Your task to perform on an android device: Check the weather Image 0: 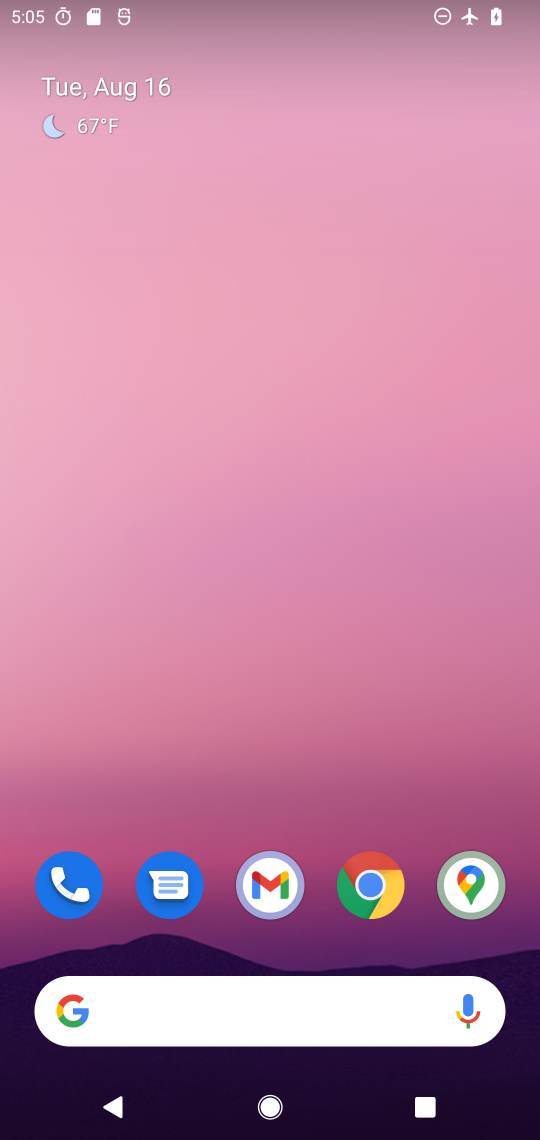
Step 0: drag from (211, 891) to (238, 194)
Your task to perform on an android device: Check the weather Image 1: 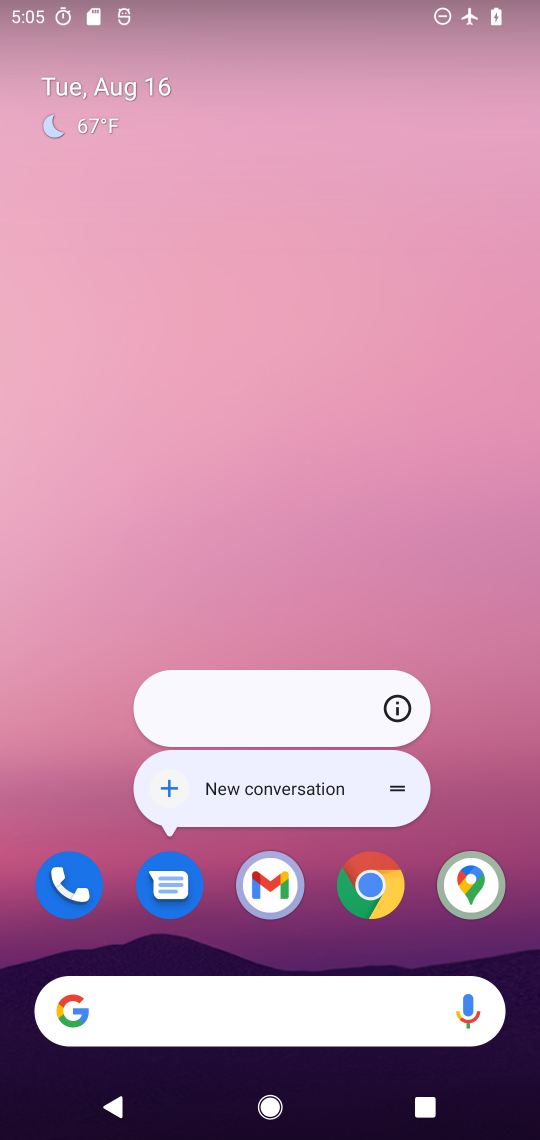
Step 1: click (395, 889)
Your task to perform on an android device: Check the weather Image 2: 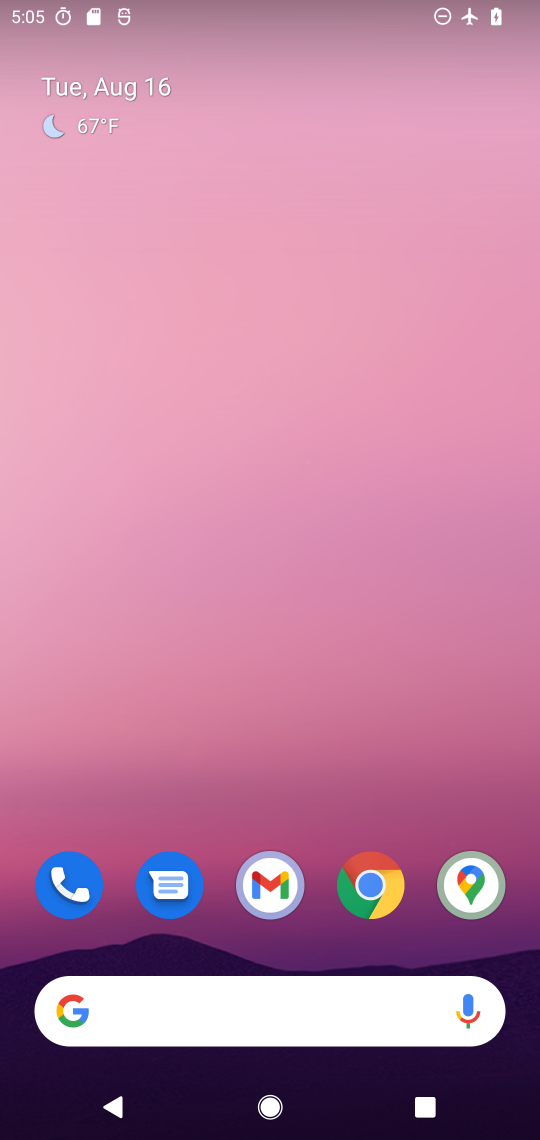
Step 2: drag from (233, 998) to (252, 72)
Your task to perform on an android device: Check the weather Image 3: 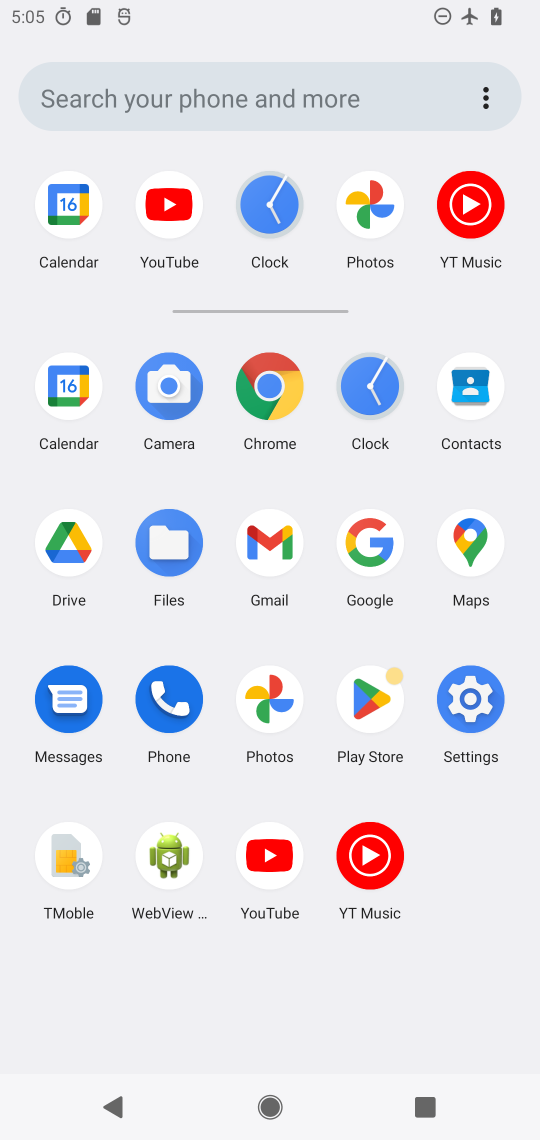
Step 3: click (278, 373)
Your task to perform on an android device: Check the weather Image 4: 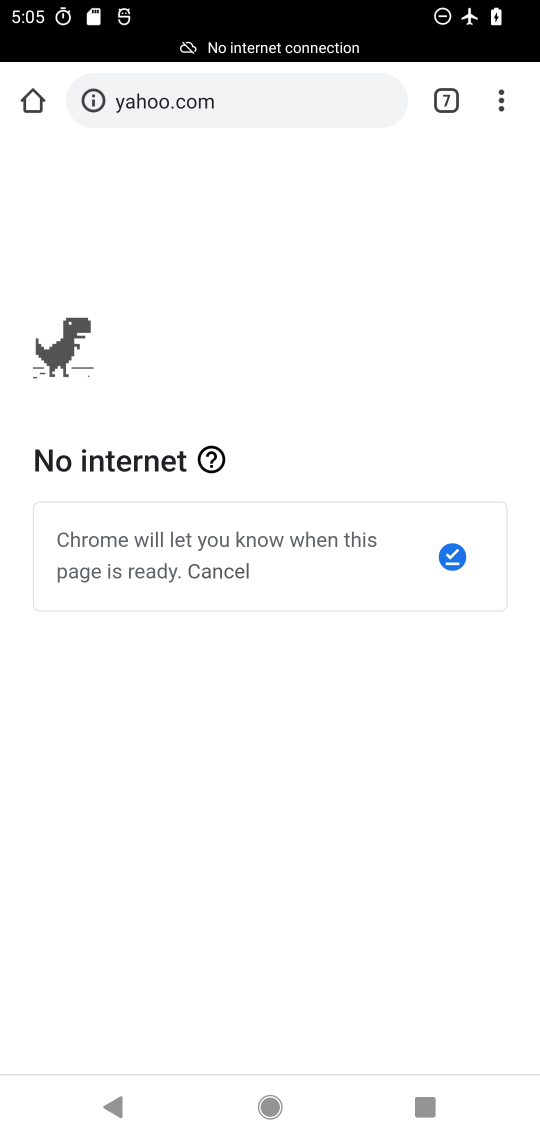
Step 4: click (509, 101)
Your task to perform on an android device: Check the weather Image 5: 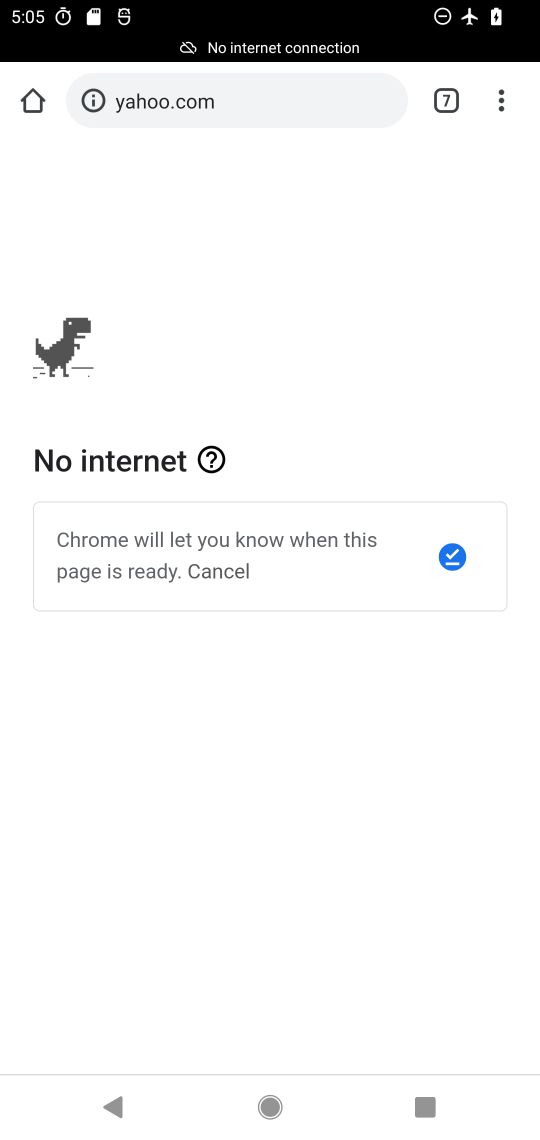
Step 5: click (492, 99)
Your task to perform on an android device: Check the weather Image 6: 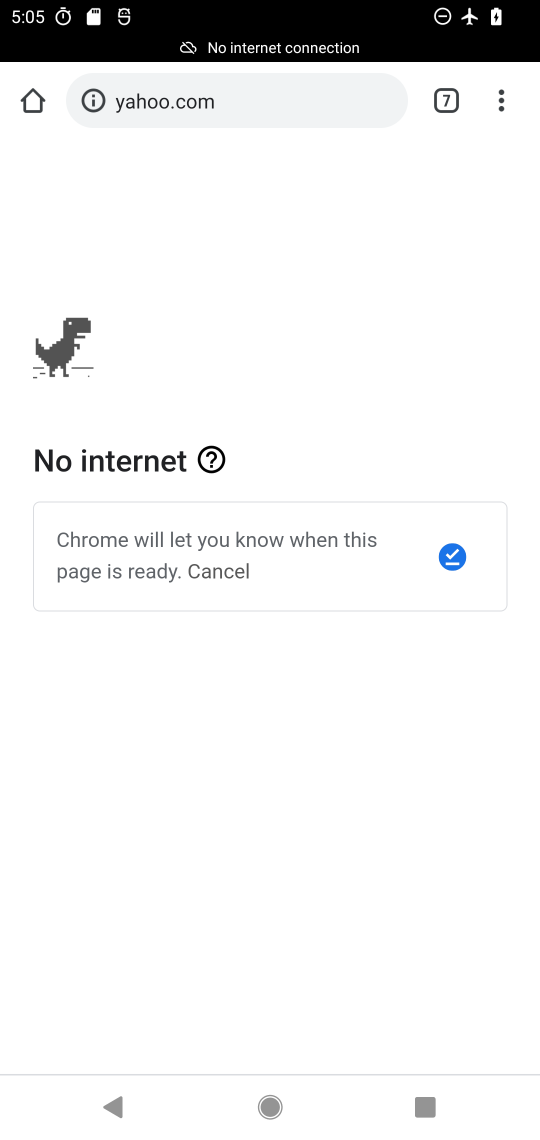
Step 6: click (492, 99)
Your task to perform on an android device: Check the weather Image 7: 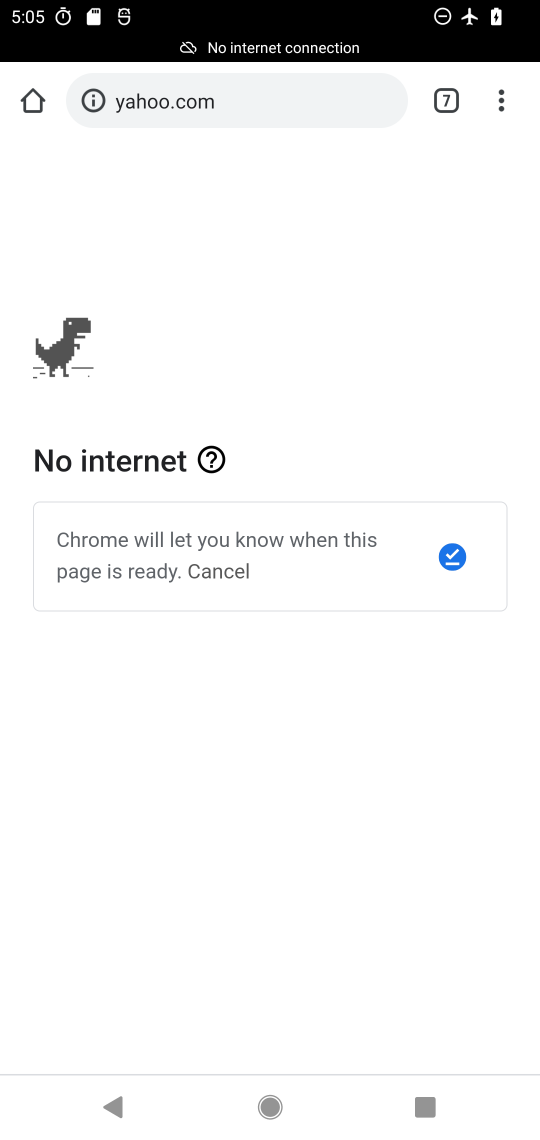
Step 7: click (500, 90)
Your task to perform on an android device: Check the weather Image 8: 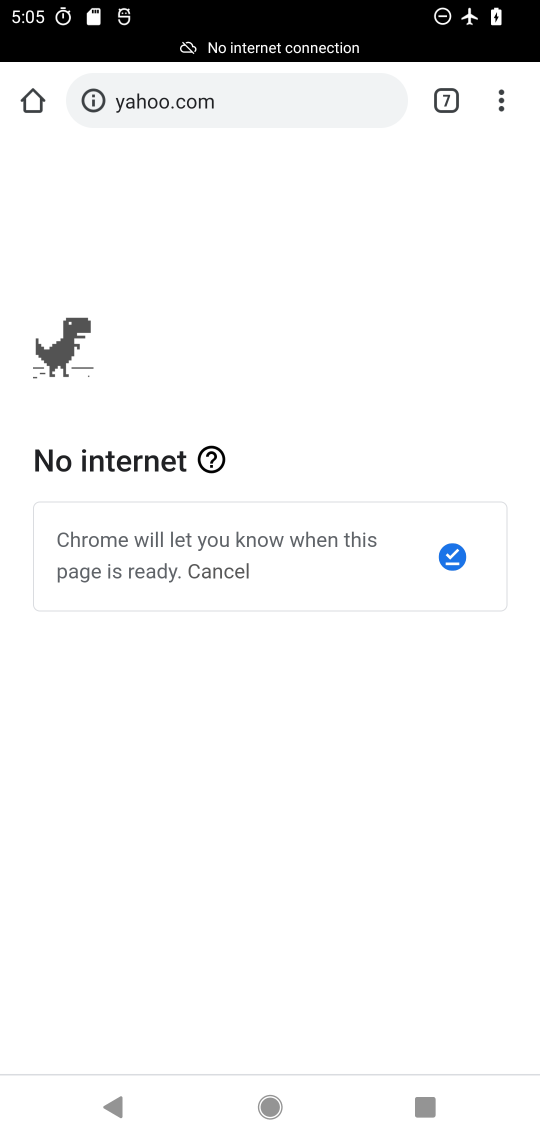
Step 8: click (500, 105)
Your task to perform on an android device: Check the weather Image 9: 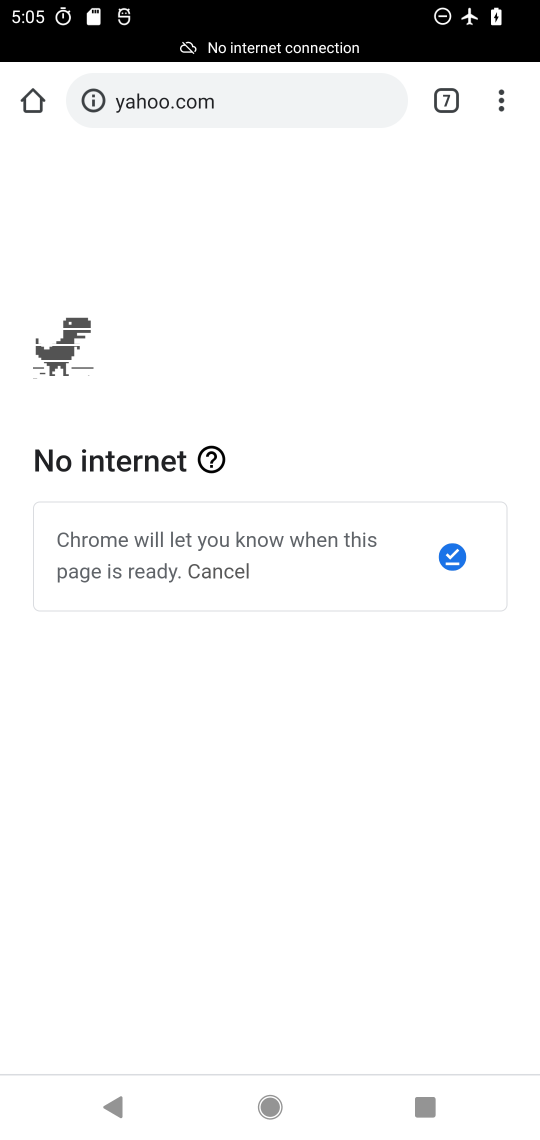
Step 9: click (487, 96)
Your task to perform on an android device: Check the weather Image 10: 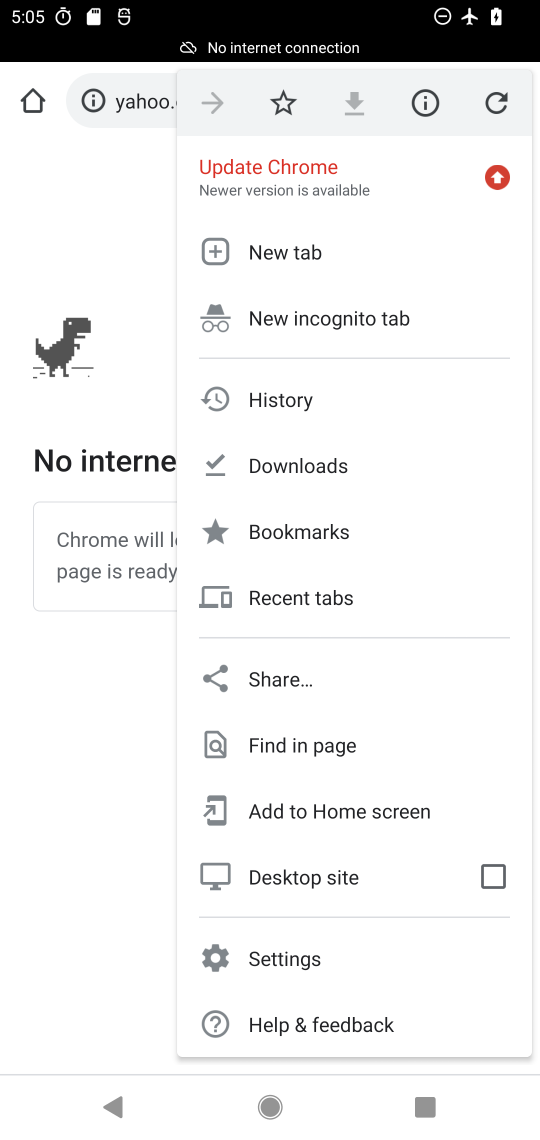
Step 10: click (279, 237)
Your task to perform on an android device: Check the weather Image 11: 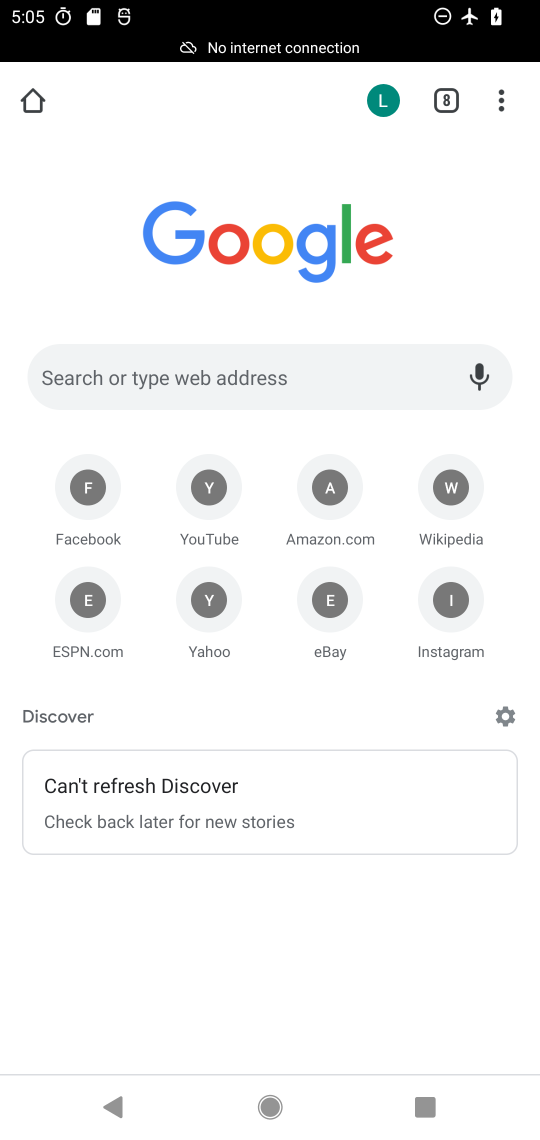
Step 11: click (187, 362)
Your task to perform on an android device: Check the weather Image 12: 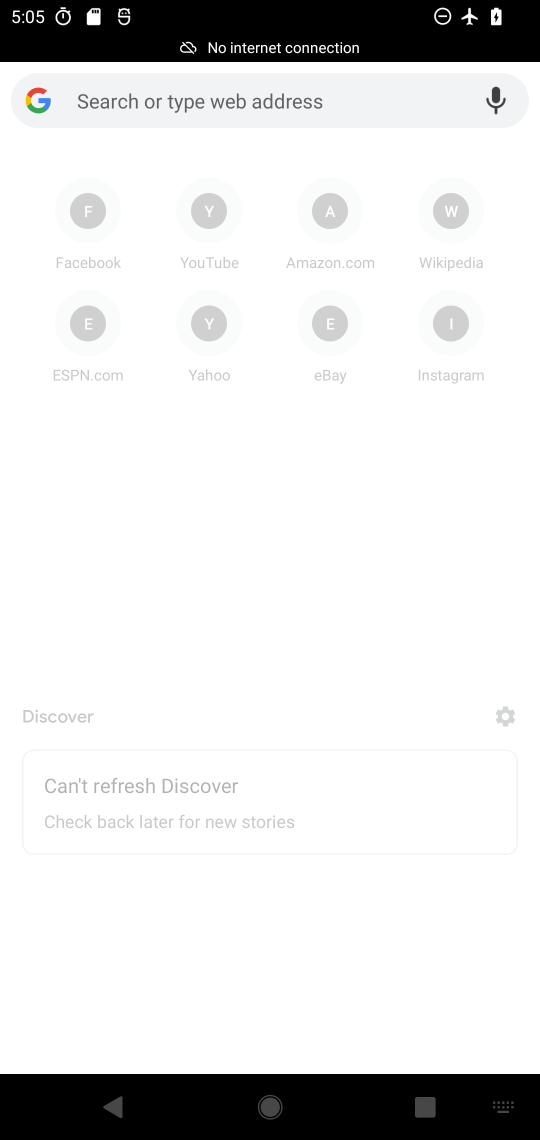
Step 12: type "Check the weather "
Your task to perform on an android device: Check the weather Image 13: 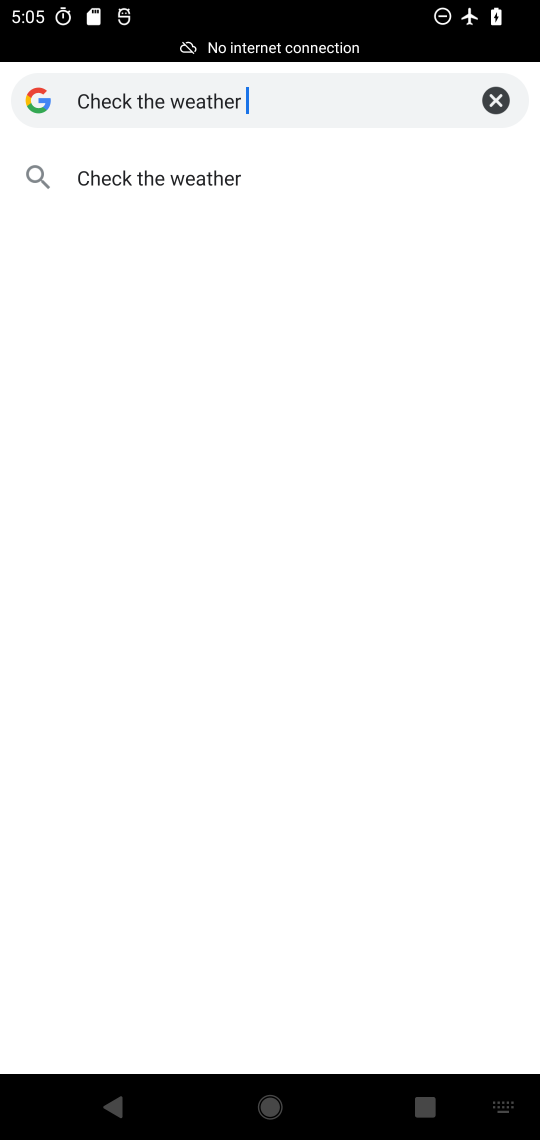
Step 13: click (250, 179)
Your task to perform on an android device: Check the weather Image 14: 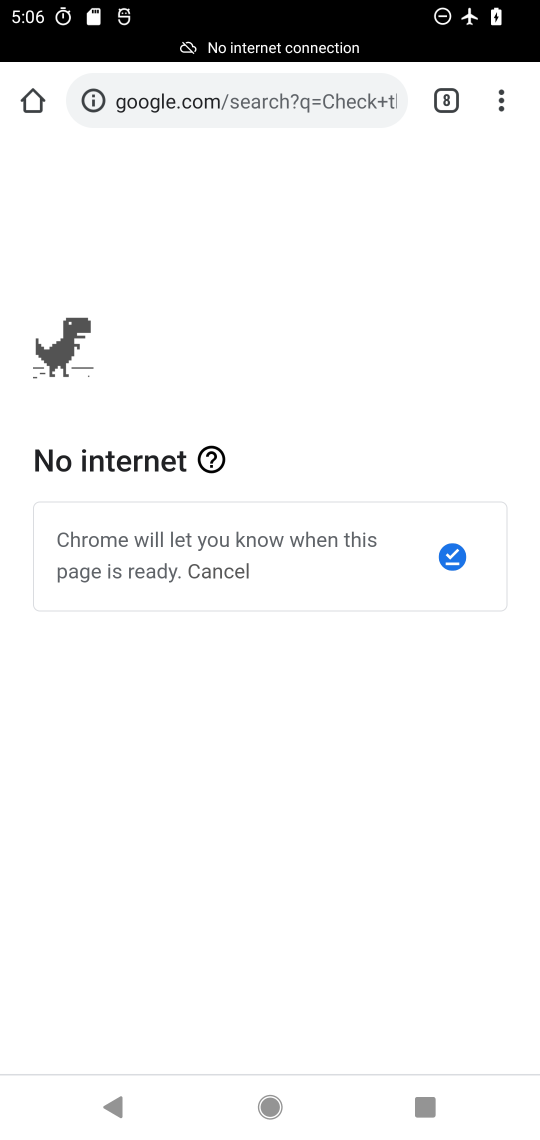
Step 14: task complete